Your task to perform on an android device: turn off wifi Image 0: 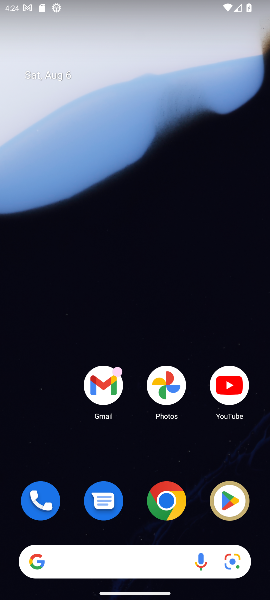
Step 0: drag from (61, 531) to (120, 20)
Your task to perform on an android device: turn off wifi Image 1: 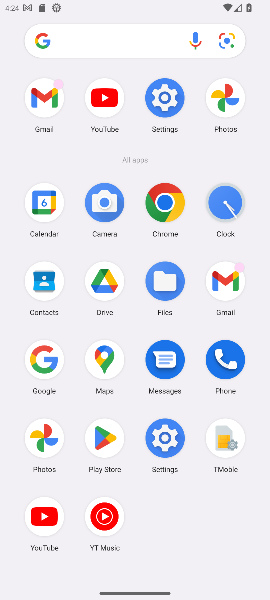
Step 1: click (156, 92)
Your task to perform on an android device: turn off wifi Image 2: 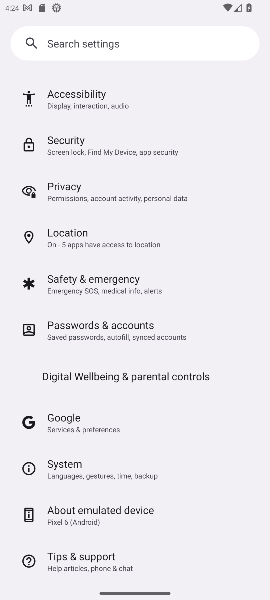
Step 2: drag from (202, 148) to (122, 545)
Your task to perform on an android device: turn off wifi Image 3: 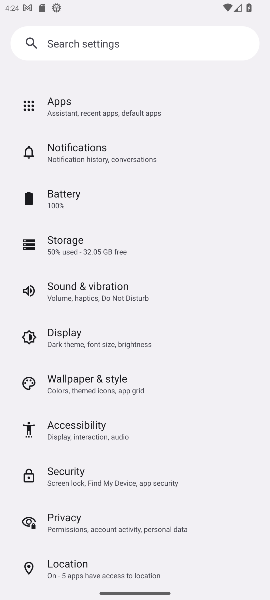
Step 3: drag from (163, 114) to (102, 550)
Your task to perform on an android device: turn off wifi Image 4: 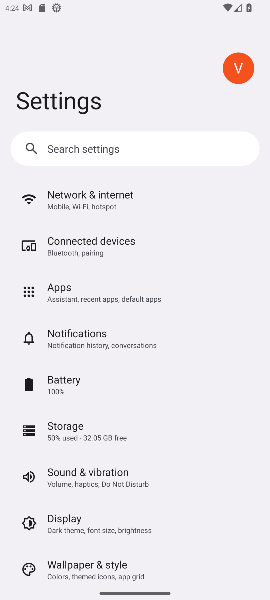
Step 4: click (127, 196)
Your task to perform on an android device: turn off wifi Image 5: 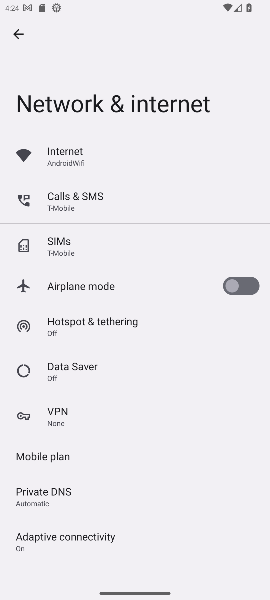
Step 5: click (151, 159)
Your task to perform on an android device: turn off wifi Image 6: 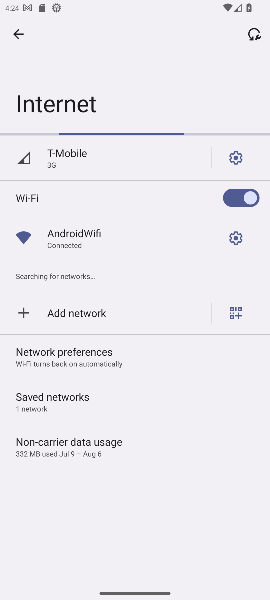
Step 6: click (242, 197)
Your task to perform on an android device: turn off wifi Image 7: 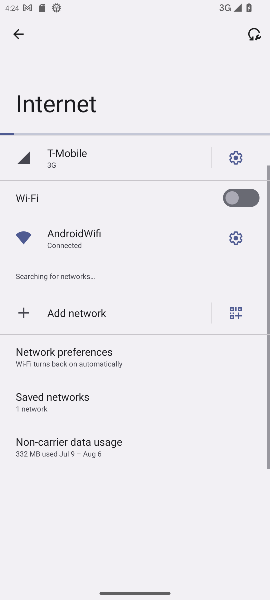
Step 7: task complete